Your task to perform on an android device: Open display settings Image 0: 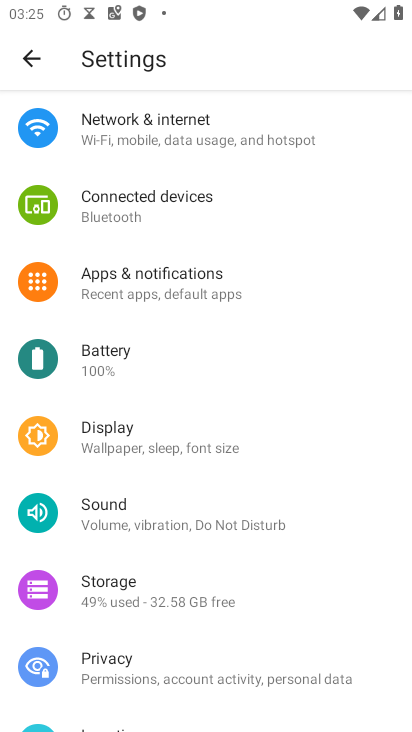
Step 0: click (116, 440)
Your task to perform on an android device: Open display settings Image 1: 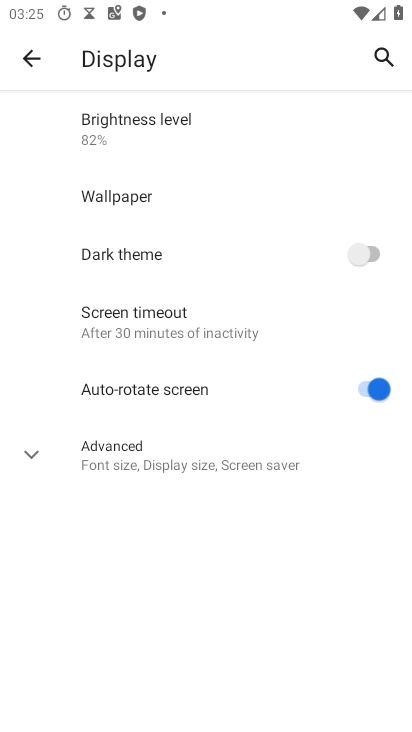
Step 1: task complete